Your task to perform on an android device: Open calendar and show me the second week of next month Image 0: 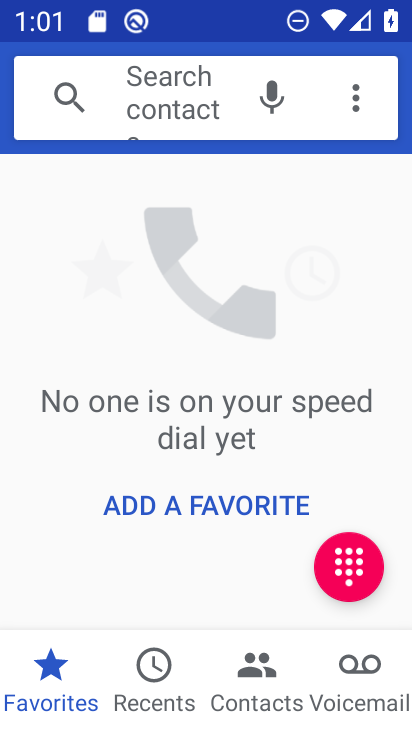
Step 0: press home button
Your task to perform on an android device: Open calendar and show me the second week of next month Image 1: 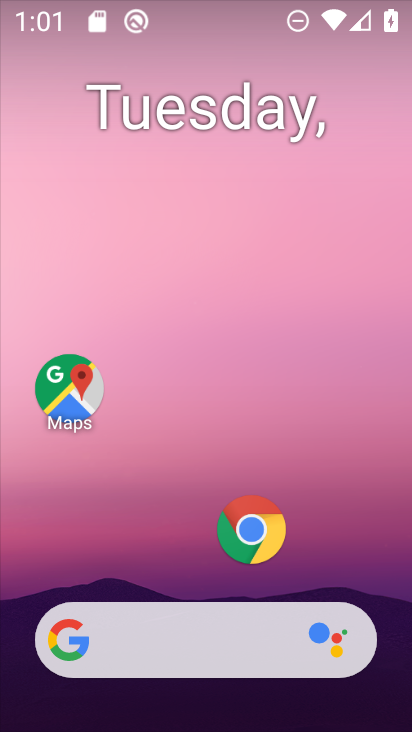
Step 1: drag from (226, 683) to (235, 240)
Your task to perform on an android device: Open calendar and show me the second week of next month Image 2: 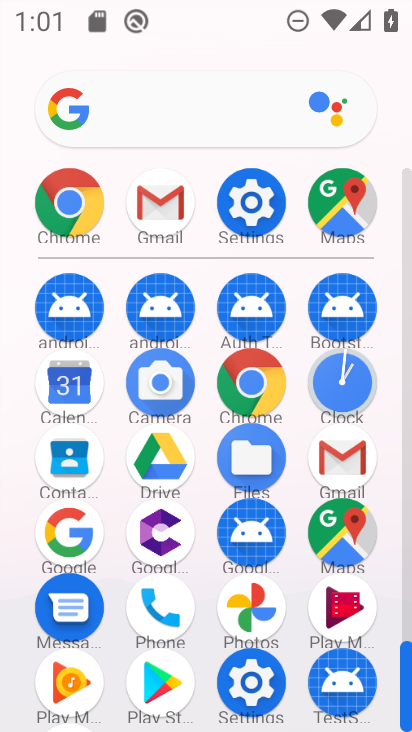
Step 2: click (77, 401)
Your task to perform on an android device: Open calendar and show me the second week of next month Image 3: 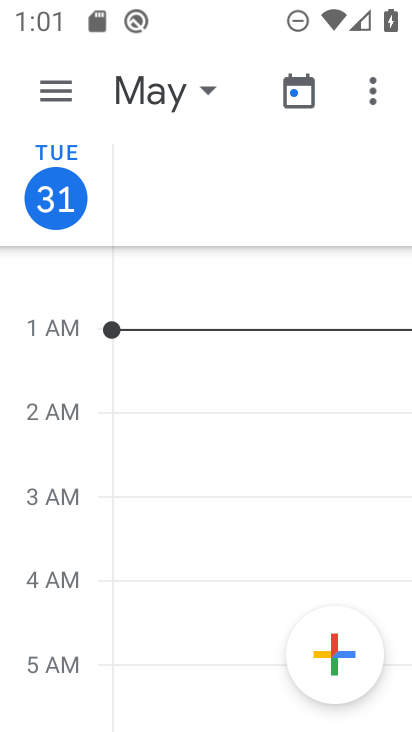
Step 3: click (53, 81)
Your task to perform on an android device: Open calendar and show me the second week of next month Image 4: 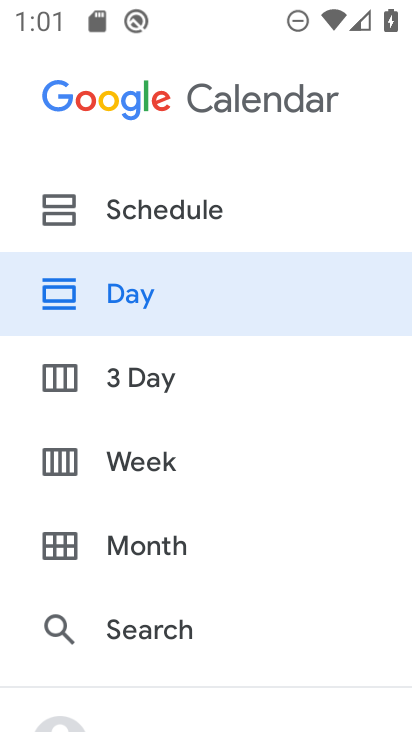
Step 4: click (131, 539)
Your task to perform on an android device: Open calendar and show me the second week of next month Image 5: 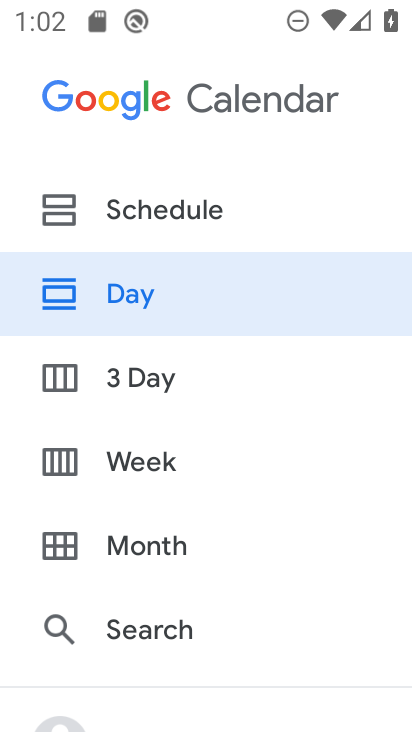
Step 5: click (117, 546)
Your task to perform on an android device: Open calendar and show me the second week of next month Image 6: 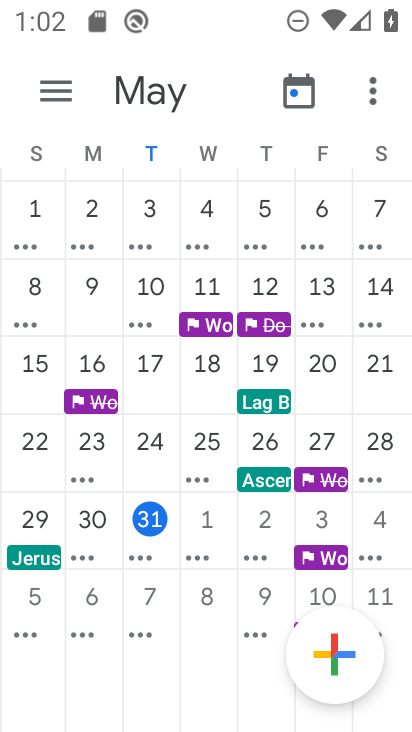
Step 6: click (107, 591)
Your task to perform on an android device: Open calendar and show me the second week of next month Image 7: 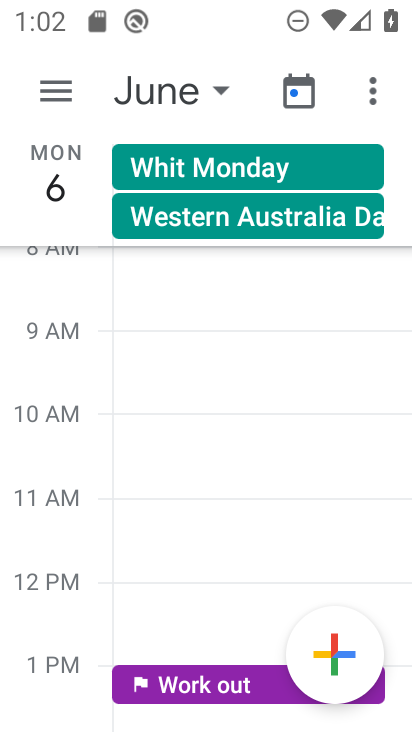
Step 7: task complete